Your task to perform on an android device: visit the assistant section in the google photos Image 0: 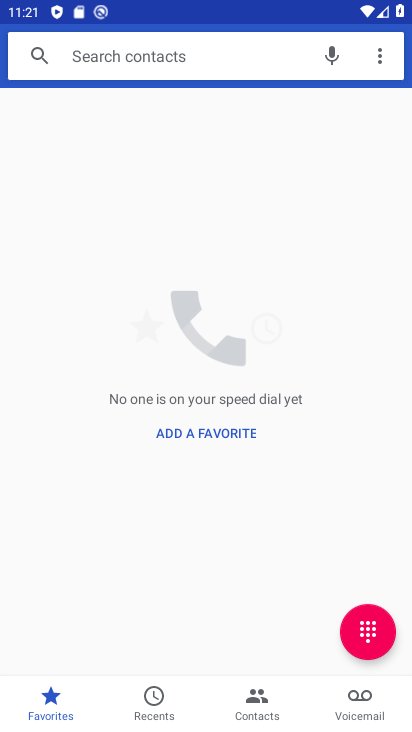
Step 0: press home button
Your task to perform on an android device: visit the assistant section in the google photos Image 1: 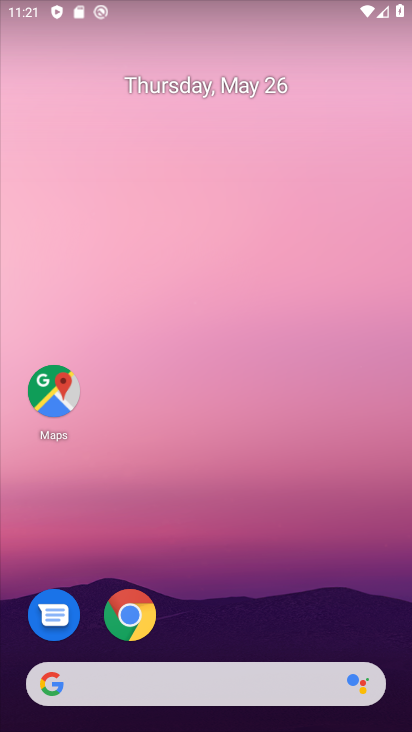
Step 1: drag from (242, 596) to (178, 329)
Your task to perform on an android device: visit the assistant section in the google photos Image 2: 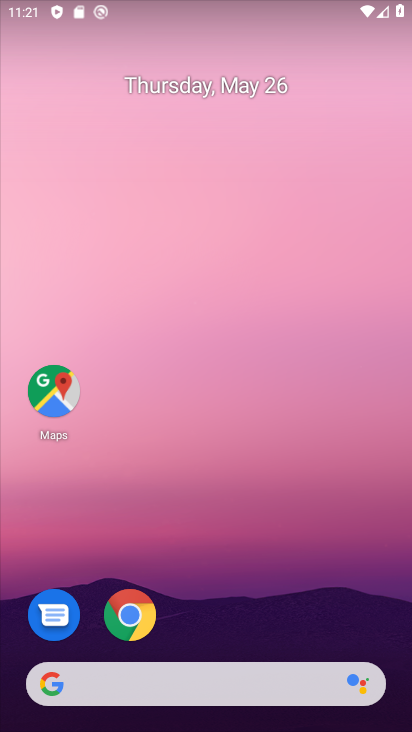
Step 2: drag from (259, 562) to (252, 43)
Your task to perform on an android device: visit the assistant section in the google photos Image 3: 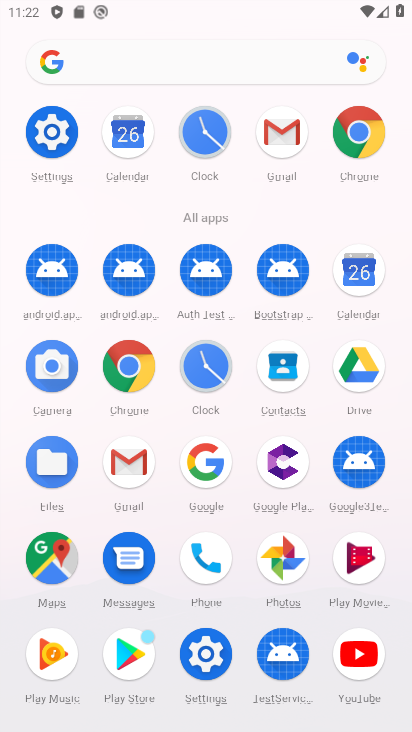
Step 3: click (299, 548)
Your task to perform on an android device: visit the assistant section in the google photos Image 4: 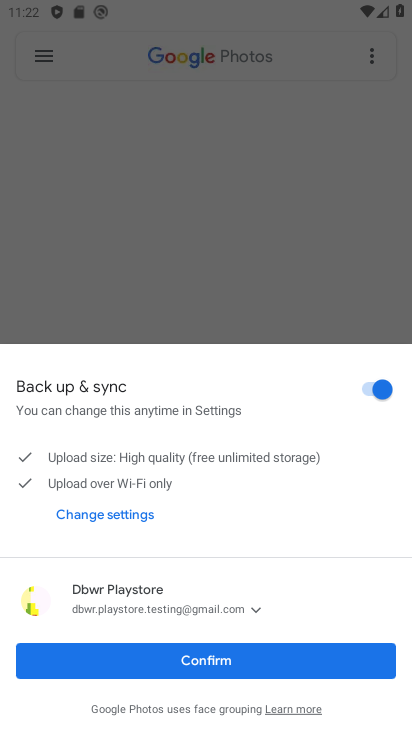
Step 4: click (58, 653)
Your task to perform on an android device: visit the assistant section in the google photos Image 5: 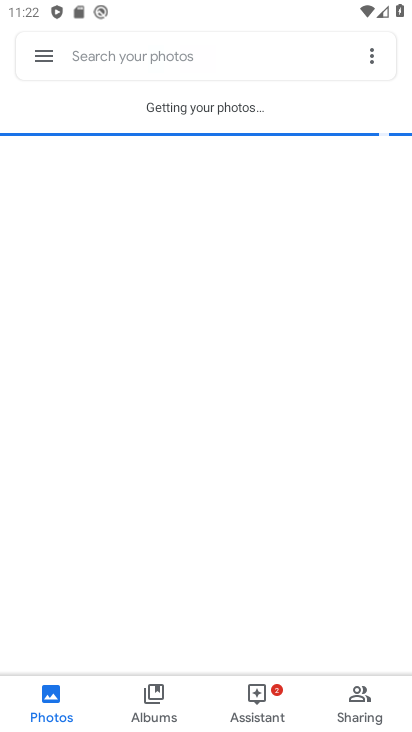
Step 5: click (270, 701)
Your task to perform on an android device: visit the assistant section in the google photos Image 6: 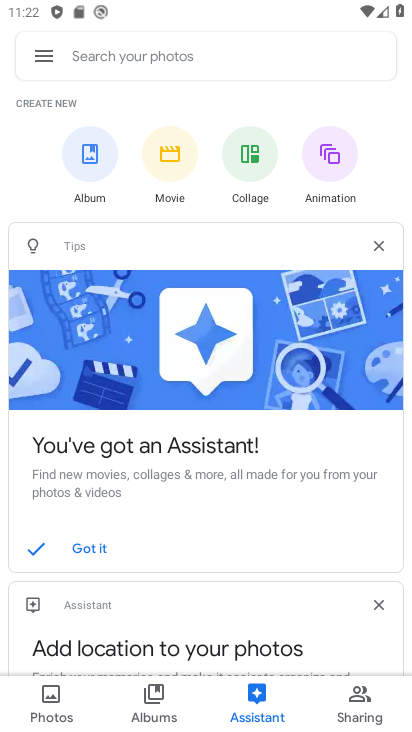
Step 6: task complete